Your task to perform on an android device: stop showing notifications on the lock screen Image 0: 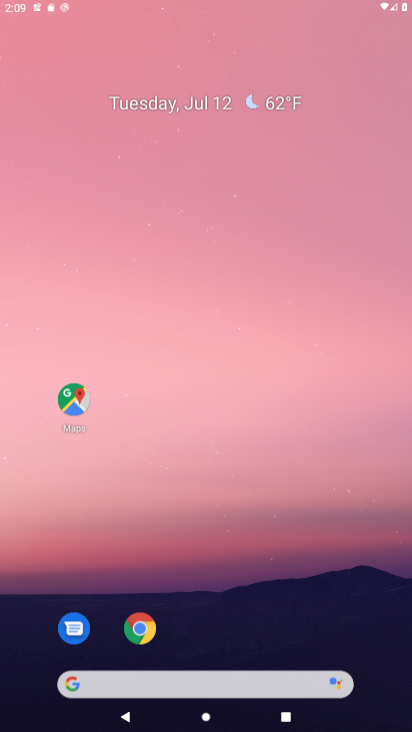
Step 0: press home button
Your task to perform on an android device: stop showing notifications on the lock screen Image 1: 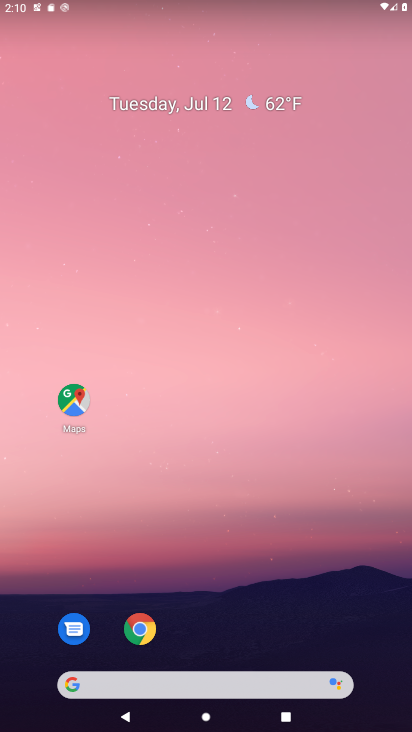
Step 1: drag from (210, 653) to (251, 92)
Your task to perform on an android device: stop showing notifications on the lock screen Image 2: 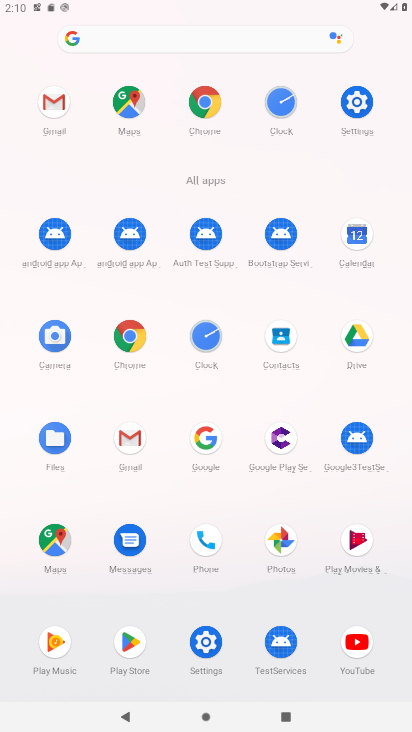
Step 2: click (356, 99)
Your task to perform on an android device: stop showing notifications on the lock screen Image 3: 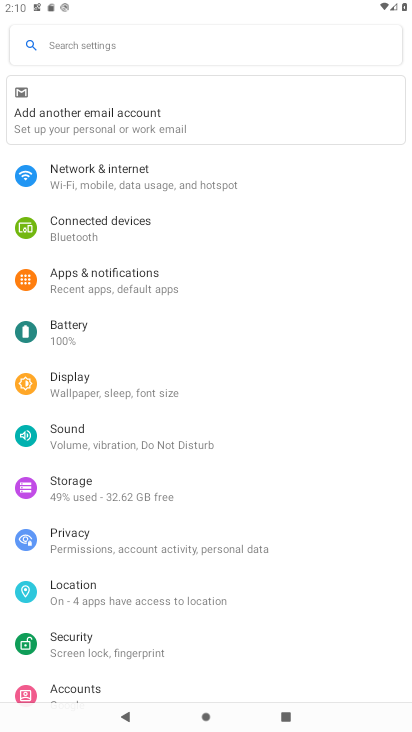
Step 3: click (117, 276)
Your task to perform on an android device: stop showing notifications on the lock screen Image 4: 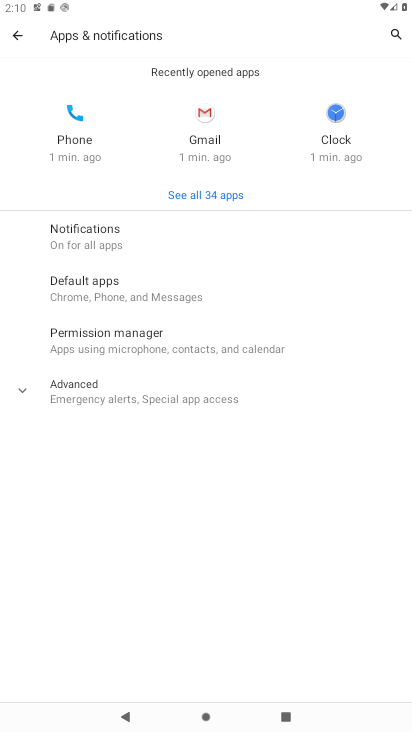
Step 4: click (144, 239)
Your task to perform on an android device: stop showing notifications on the lock screen Image 5: 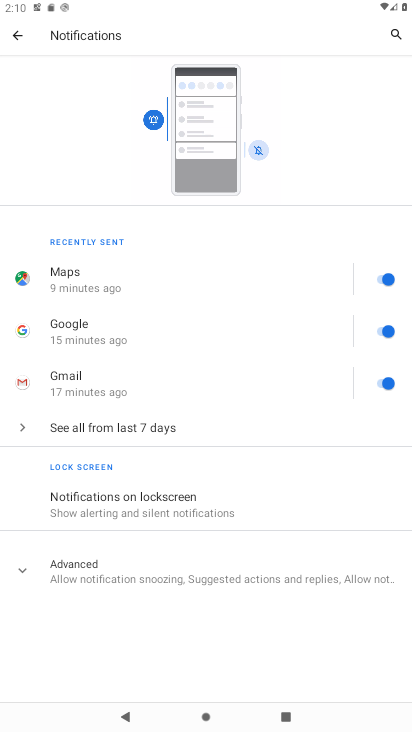
Step 5: click (102, 507)
Your task to perform on an android device: stop showing notifications on the lock screen Image 6: 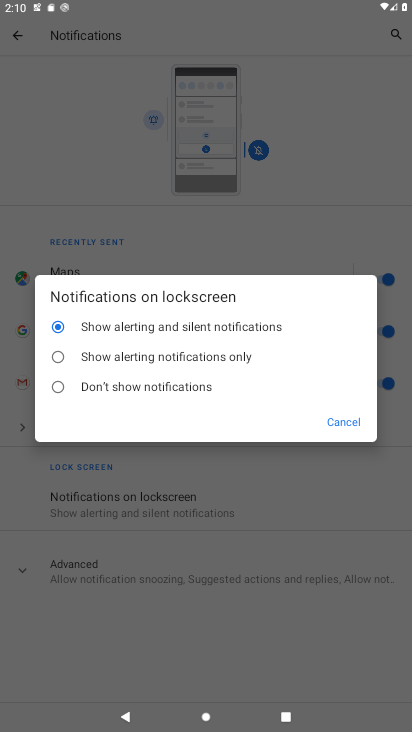
Step 6: click (59, 385)
Your task to perform on an android device: stop showing notifications on the lock screen Image 7: 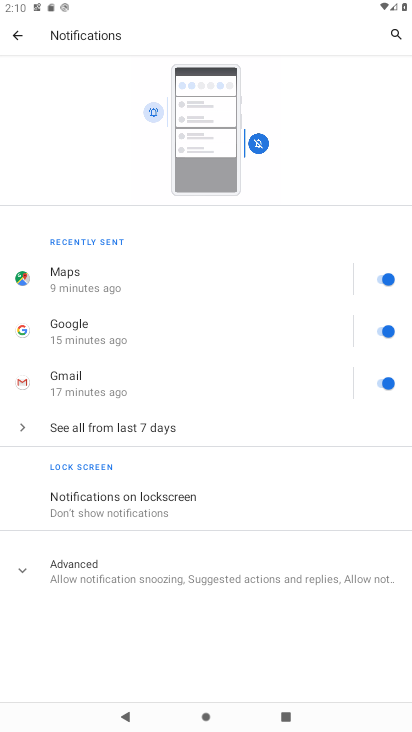
Step 7: task complete